Your task to perform on an android device: find snoozed emails in the gmail app Image 0: 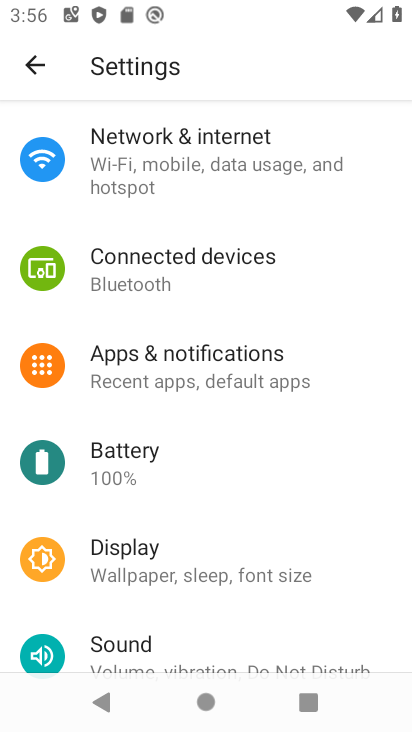
Step 0: press home button
Your task to perform on an android device: find snoozed emails in the gmail app Image 1: 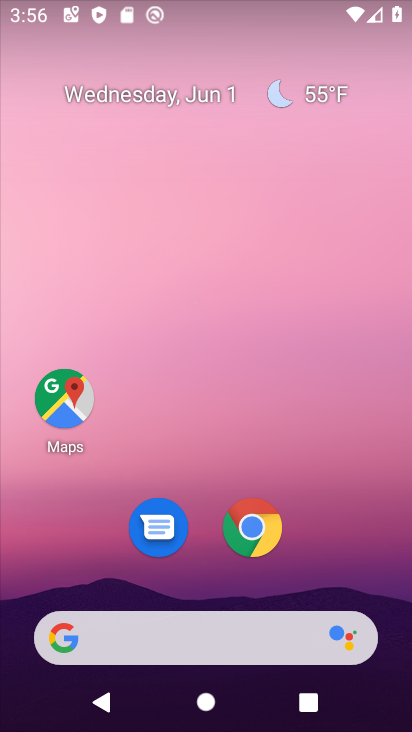
Step 1: drag from (293, 530) to (335, 45)
Your task to perform on an android device: find snoozed emails in the gmail app Image 2: 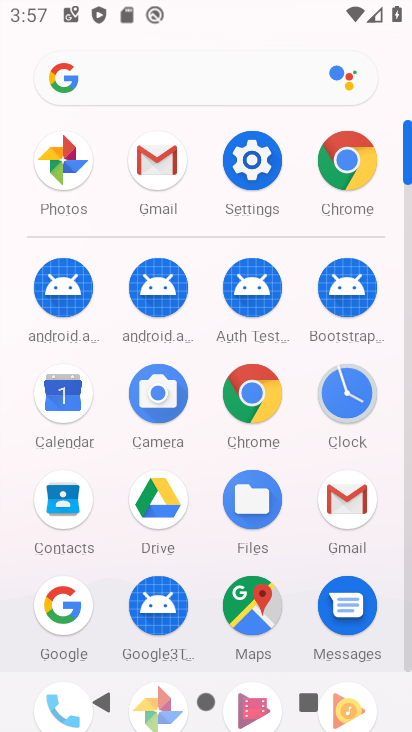
Step 2: click (348, 497)
Your task to perform on an android device: find snoozed emails in the gmail app Image 3: 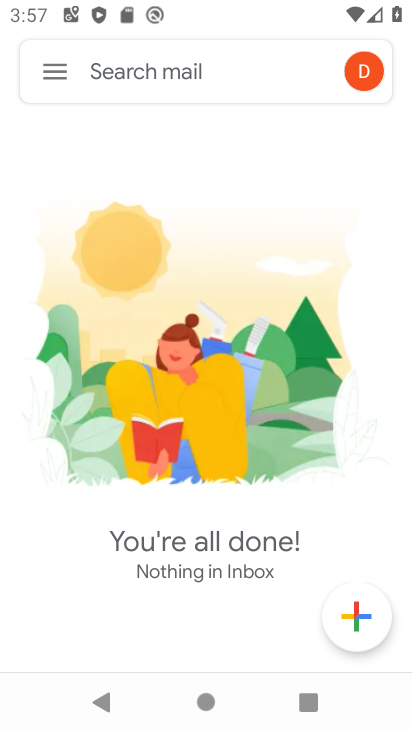
Step 3: click (45, 64)
Your task to perform on an android device: find snoozed emails in the gmail app Image 4: 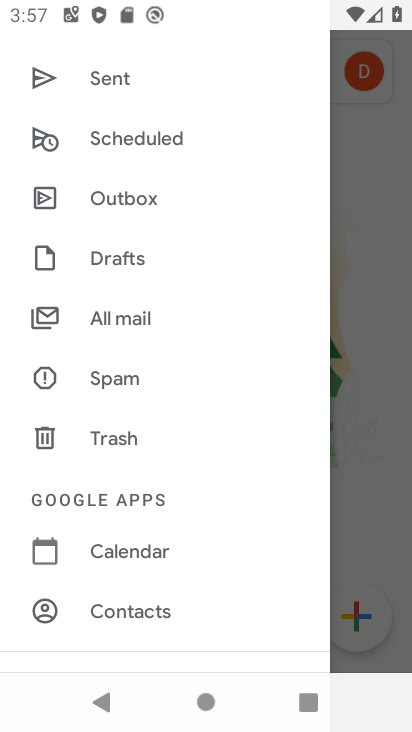
Step 4: drag from (194, 123) to (177, 446)
Your task to perform on an android device: find snoozed emails in the gmail app Image 5: 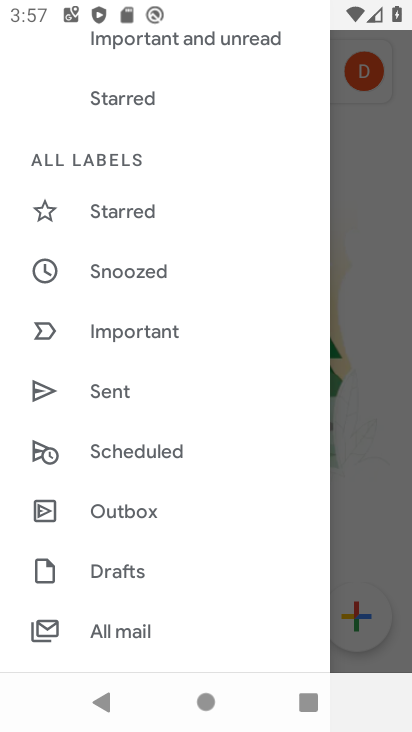
Step 5: click (148, 270)
Your task to perform on an android device: find snoozed emails in the gmail app Image 6: 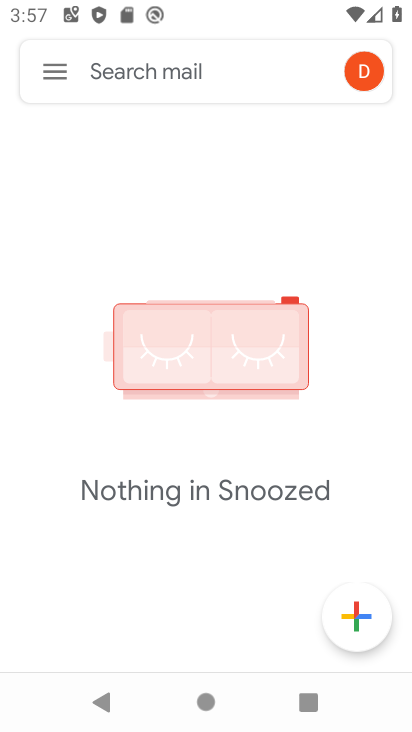
Step 6: task complete